Your task to perform on an android device: turn off location history Image 0: 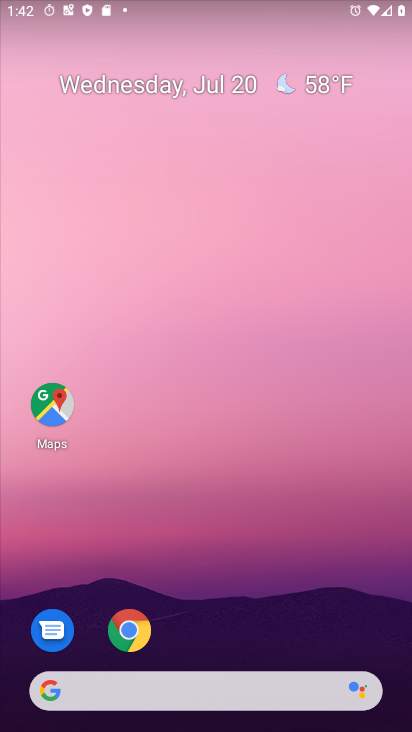
Step 0: click (45, 399)
Your task to perform on an android device: turn off location history Image 1: 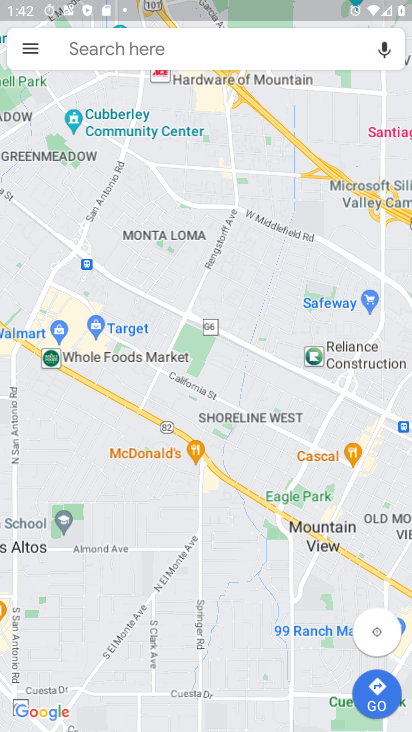
Step 1: click (27, 47)
Your task to perform on an android device: turn off location history Image 2: 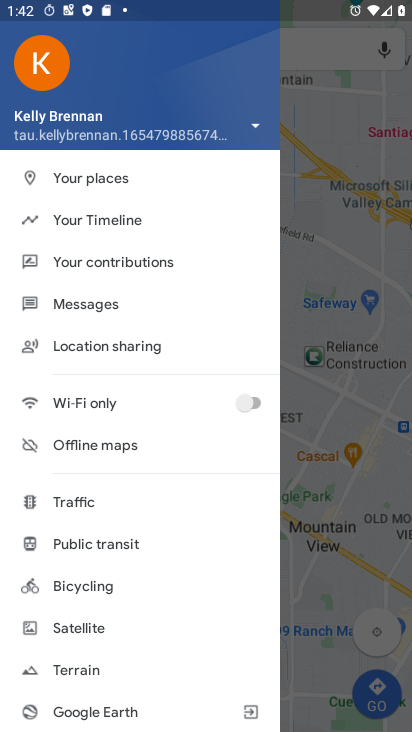
Step 2: click (121, 224)
Your task to perform on an android device: turn off location history Image 3: 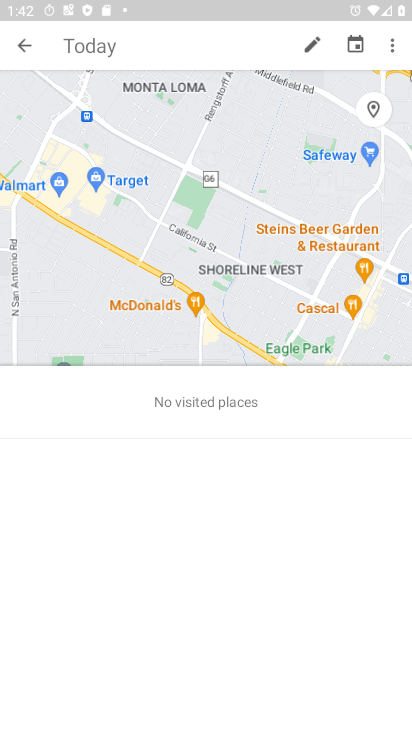
Step 3: click (393, 49)
Your task to perform on an android device: turn off location history Image 4: 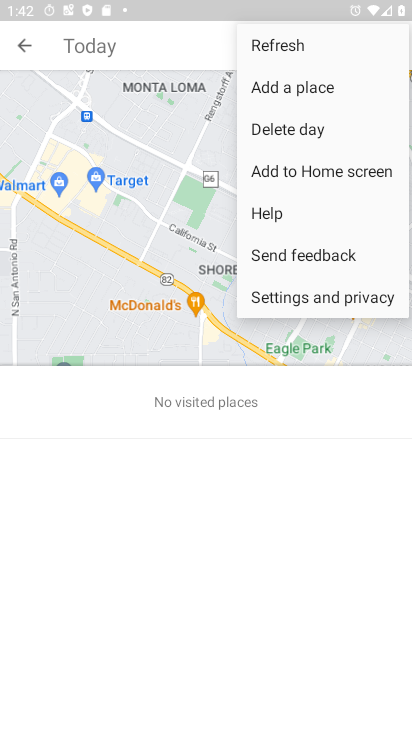
Step 4: click (296, 286)
Your task to perform on an android device: turn off location history Image 5: 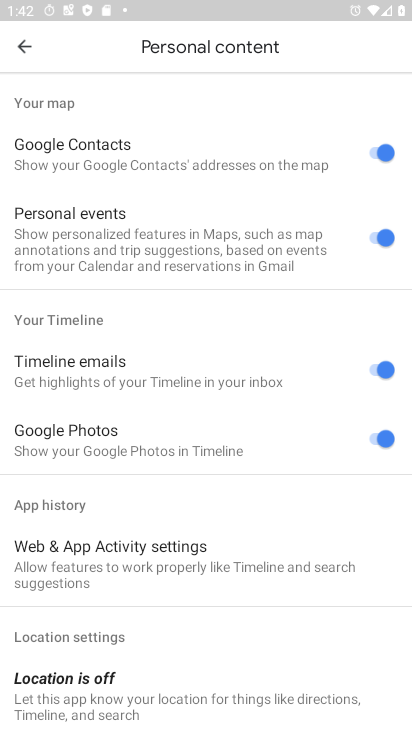
Step 5: drag from (199, 617) to (276, 182)
Your task to perform on an android device: turn off location history Image 6: 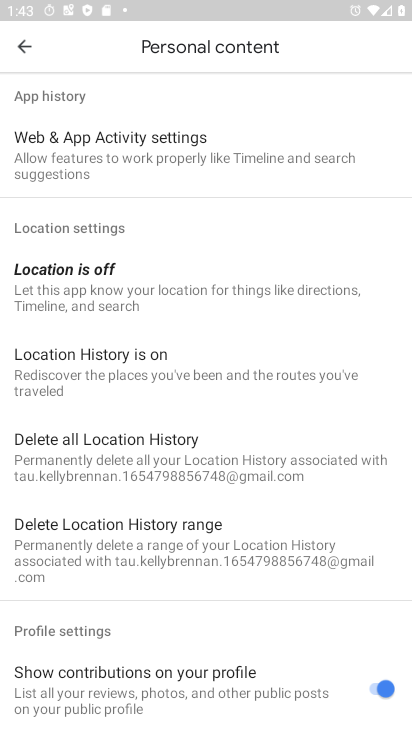
Step 6: click (94, 366)
Your task to perform on an android device: turn off location history Image 7: 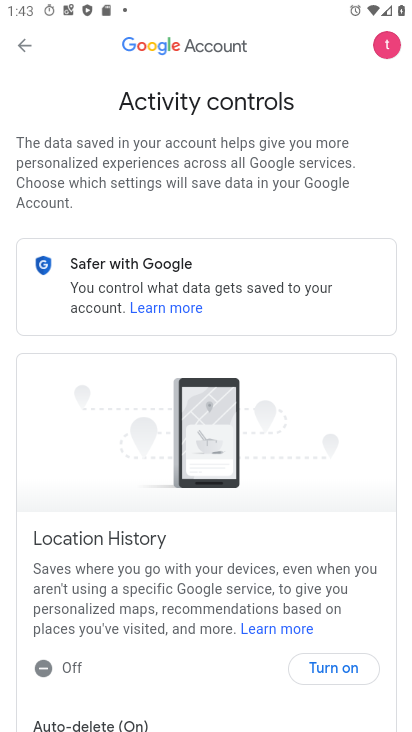
Step 7: task complete